Your task to perform on an android device: turn on the 24-hour format for clock Image 0: 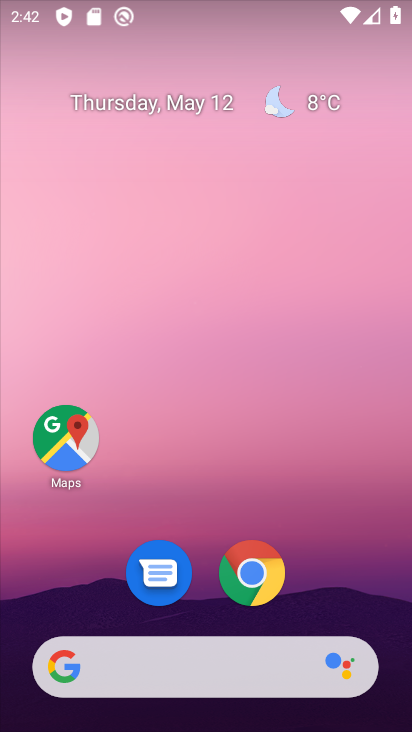
Step 0: drag from (329, 579) to (344, 142)
Your task to perform on an android device: turn on the 24-hour format for clock Image 1: 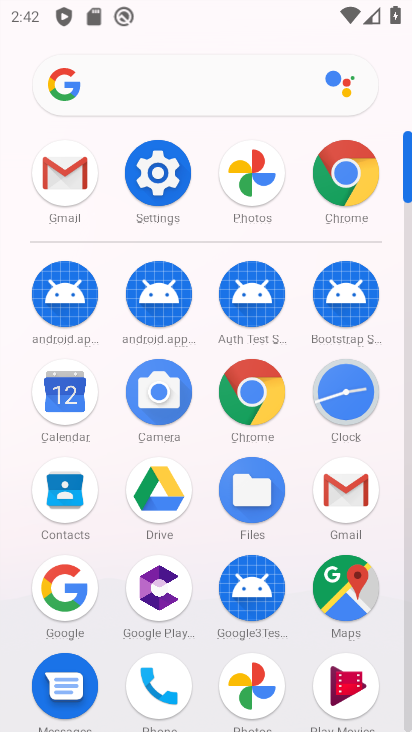
Step 1: click (330, 377)
Your task to perform on an android device: turn on the 24-hour format for clock Image 2: 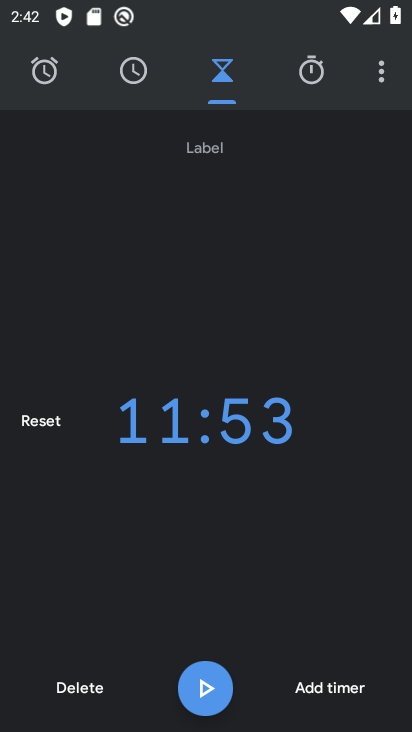
Step 2: click (378, 69)
Your task to perform on an android device: turn on the 24-hour format for clock Image 3: 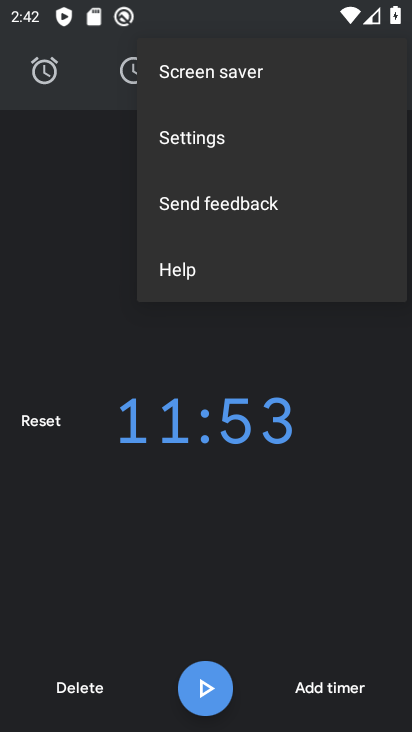
Step 3: click (207, 148)
Your task to perform on an android device: turn on the 24-hour format for clock Image 4: 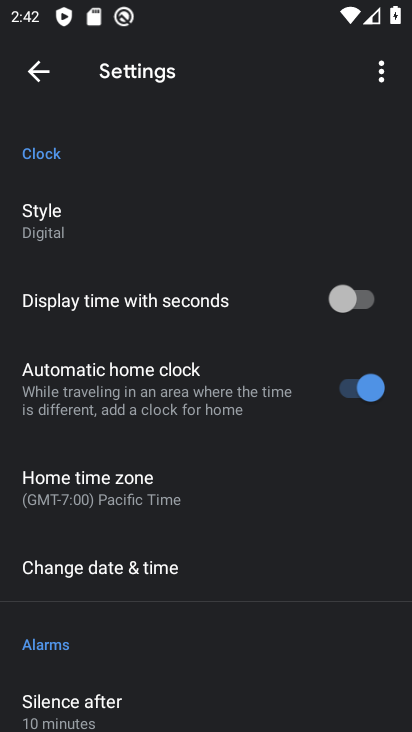
Step 4: click (60, 571)
Your task to perform on an android device: turn on the 24-hour format for clock Image 5: 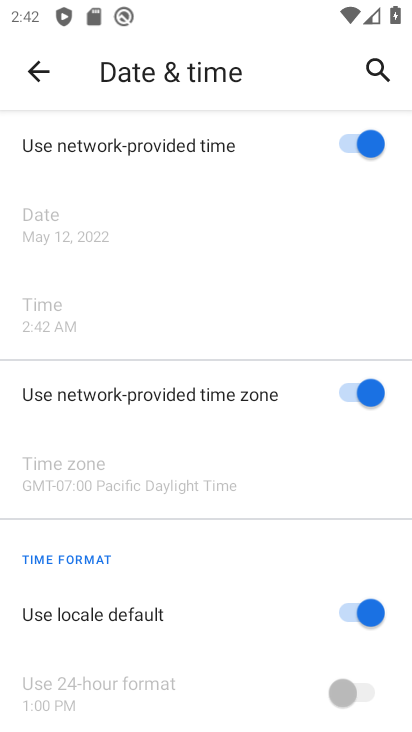
Step 5: drag from (286, 356) to (294, 297)
Your task to perform on an android device: turn on the 24-hour format for clock Image 6: 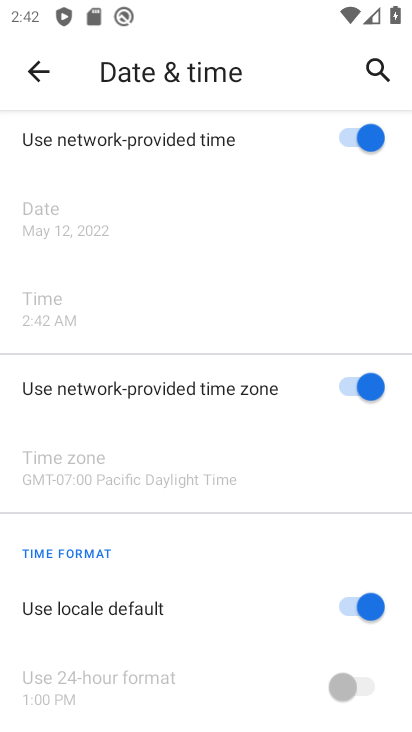
Step 6: click (346, 598)
Your task to perform on an android device: turn on the 24-hour format for clock Image 7: 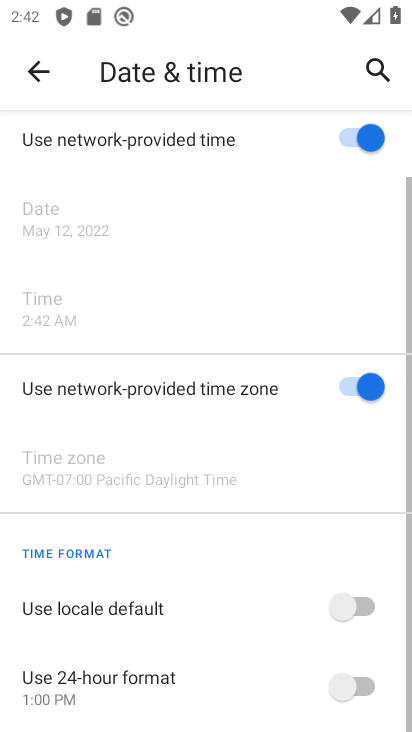
Step 7: click (352, 682)
Your task to perform on an android device: turn on the 24-hour format for clock Image 8: 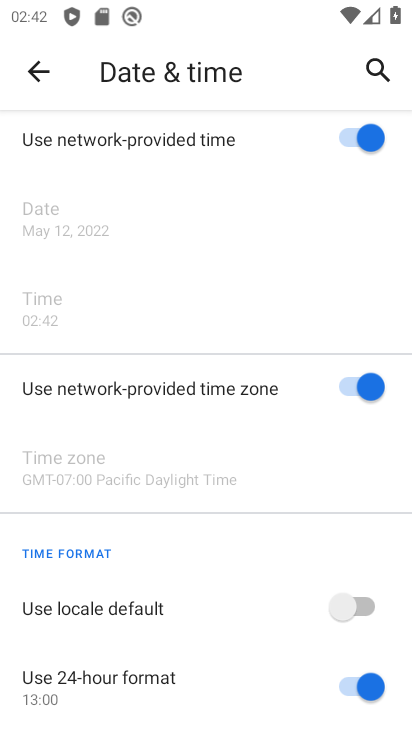
Step 8: task complete